Your task to perform on an android device: Search for sushi restaurants on Maps Image 0: 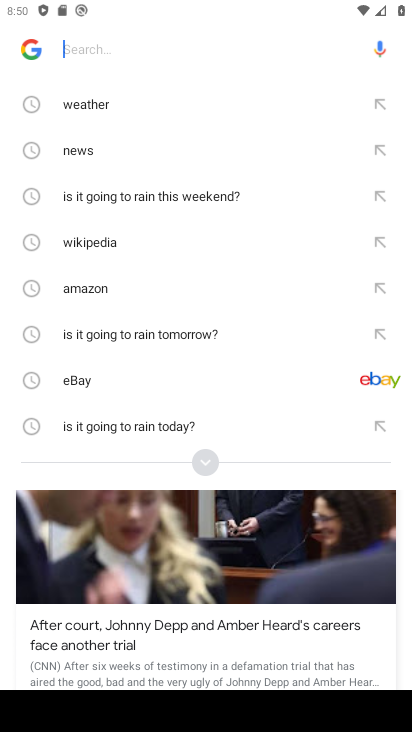
Step 0: press home button
Your task to perform on an android device: Search for sushi restaurants on Maps Image 1: 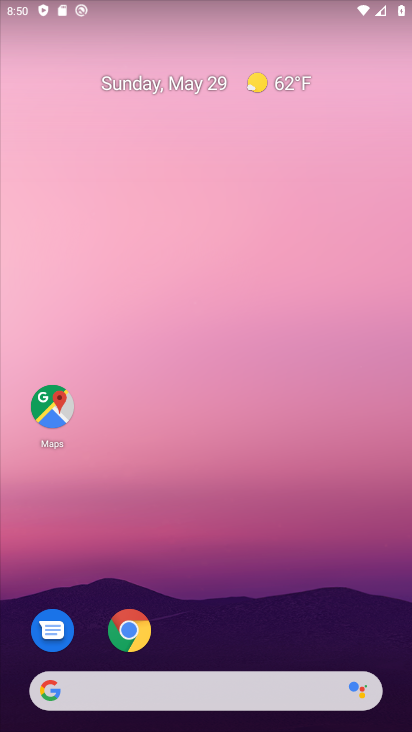
Step 1: click (48, 416)
Your task to perform on an android device: Search for sushi restaurants on Maps Image 2: 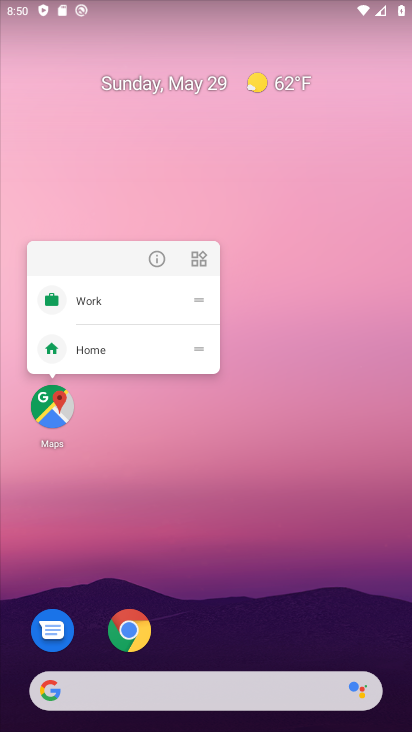
Step 2: click (51, 399)
Your task to perform on an android device: Search for sushi restaurants on Maps Image 3: 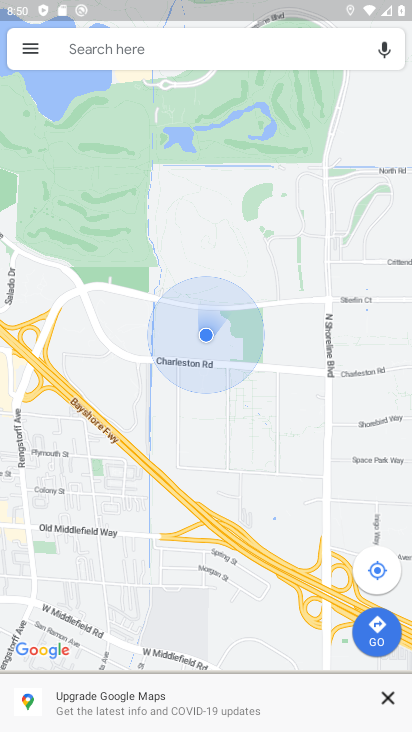
Step 3: click (58, 48)
Your task to perform on an android device: Search for sushi restaurants on Maps Image 4: 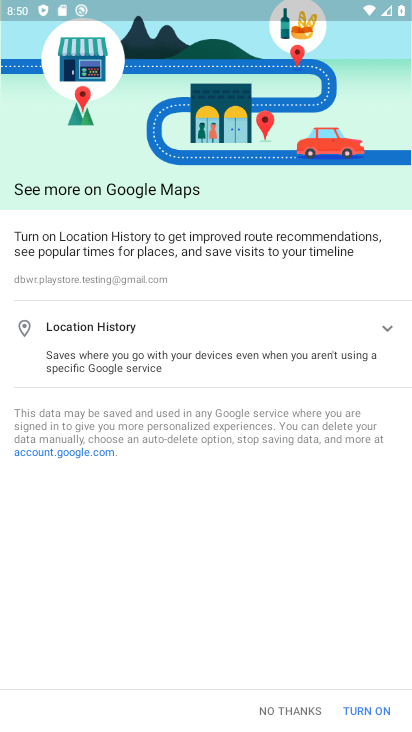
Step 4: click (361, 702)
Your task to perform on an android device: Search for sushi restaurants on Maps Image 5: 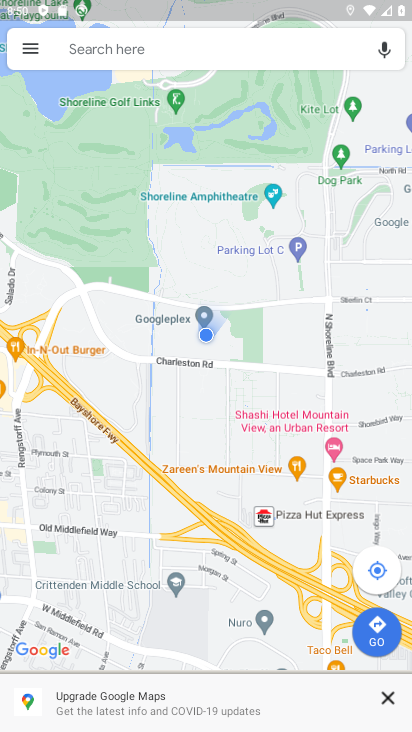
Step 5: click (103, 56)
Your task to perform on an android device: Search for sushi restaurants on Maps Image 6: 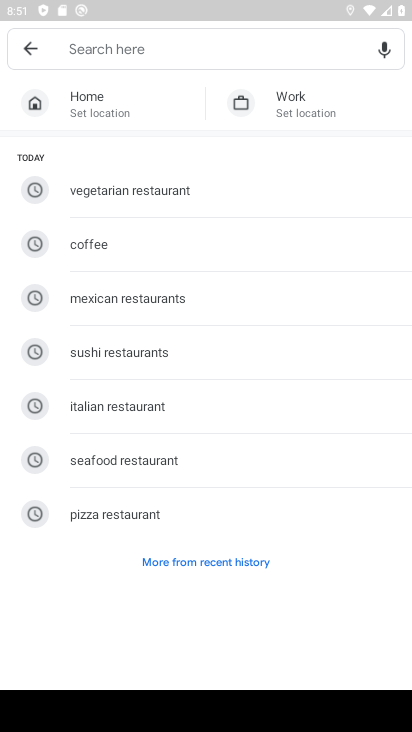
Step 6: type "sushi restaurants"
Your task to perform on an android device: Search for sushi restaurants on Maps Image 7: 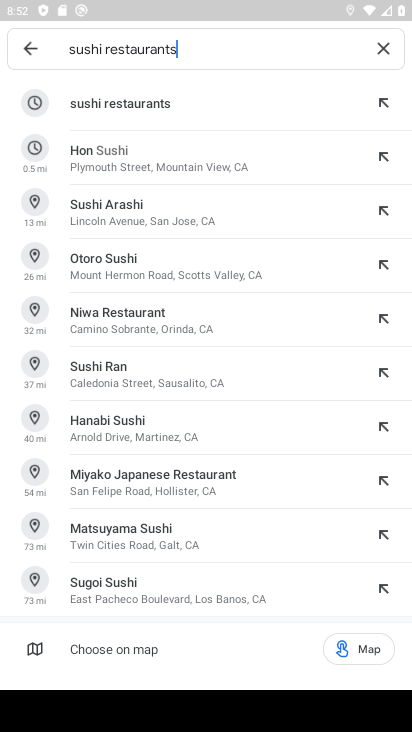
Step 7: click (80, 102)
Your task to perform on an android device: Search for sushi restaurants on Maps Image 8: 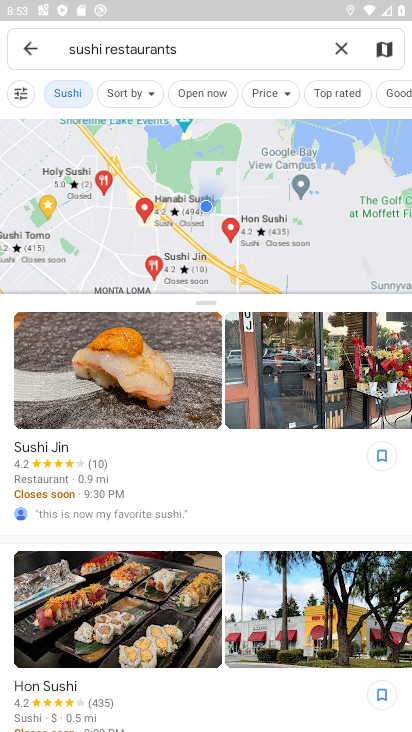
Step 8: task complete